Your task to perform on an android device: Go to display settings Image 0: 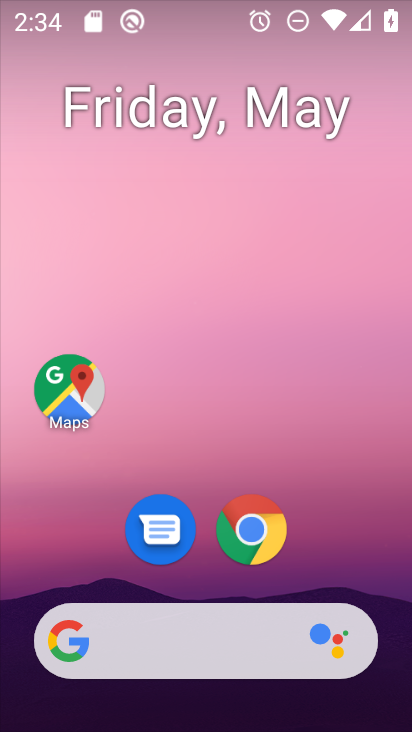
Step 0: drag from (363, 444) to (348, 361)
Your task to perform on an android device: Go to display settings Image 1: 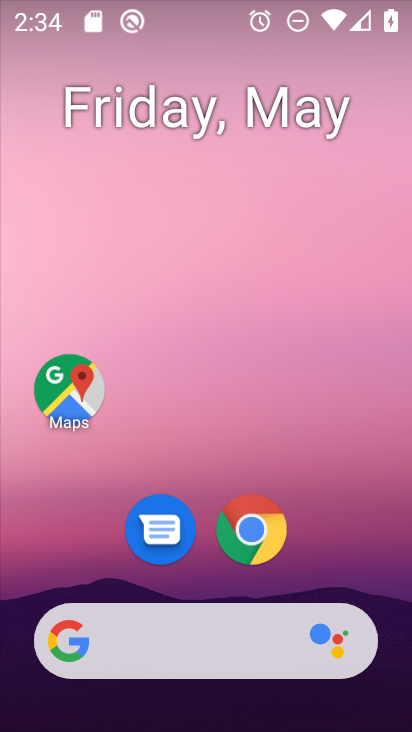
Step 1: drag from (400, 488) to (384, 366)
Your task to perform on an android device: Go to display settings Image 2: 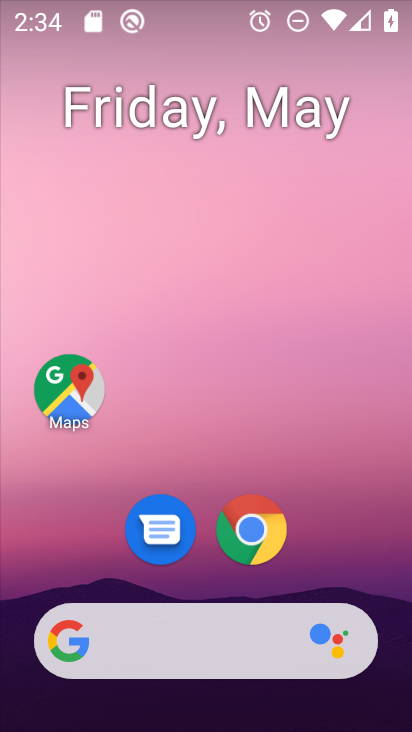
Step 2: drag from (388, 651) to (333, 190)
Your task to perform on an android device: Go to display settings Image 3: 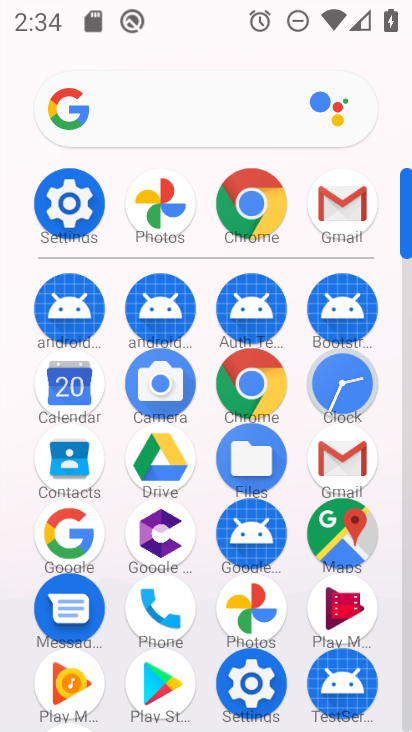
Step 3: click (239, 675)
Your task to perform on an android device: Go to display settings Image 4: 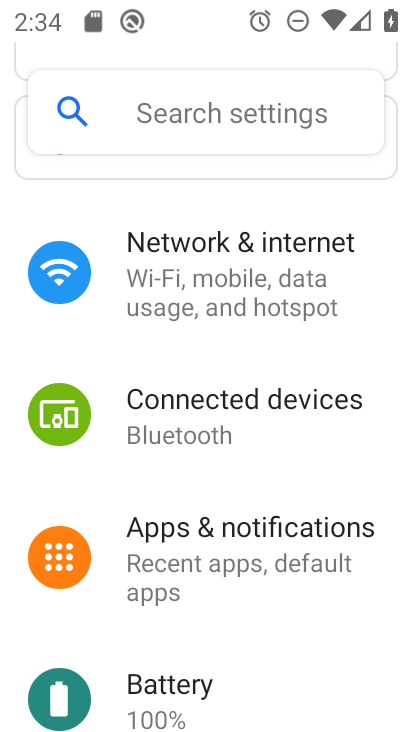
Step 4: drag from (280, 677) to (269, 324)
Your task to perform on an android device: Go to display settings Image 5: 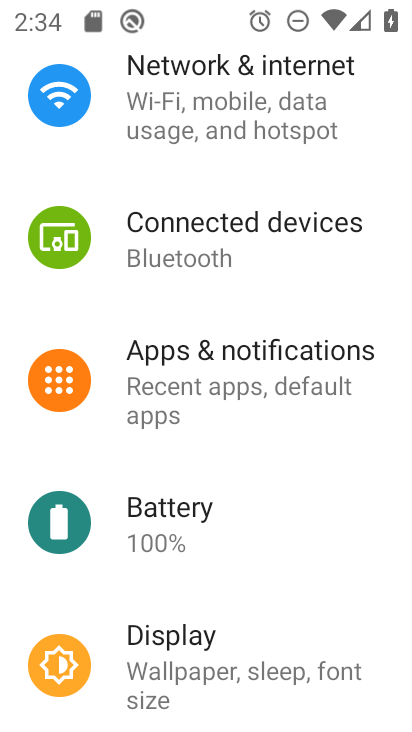
Step 5: drag from (299, 709) to (278, 402)
Your task to perform on an android device: Go to display settings Image 6: 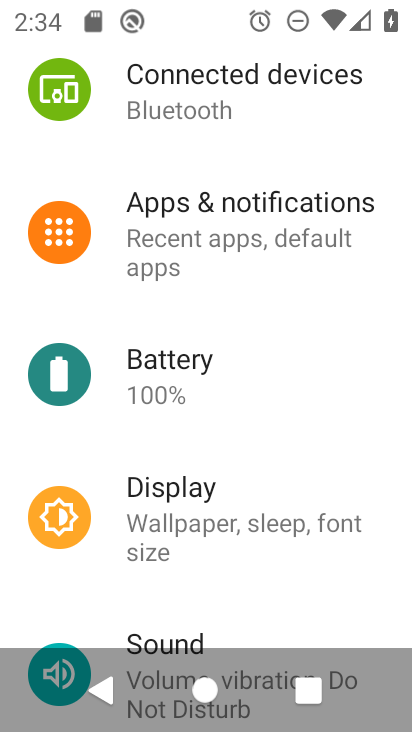
Step 6: click (167, 512)
Your task to perform on an android device: Go to display settings Image 7: 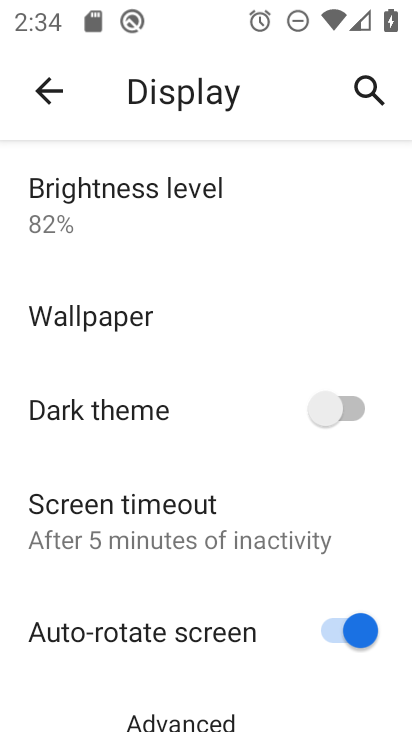
Step 7: task complete